Your task to perform on an android device: open device folders in google photos Image 0: 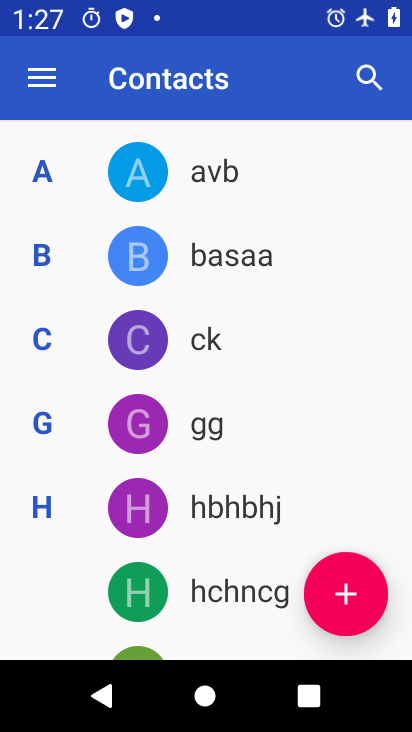
Step 0: press home button
Your task to perform on an android device: open device folders in google photos Image 1: 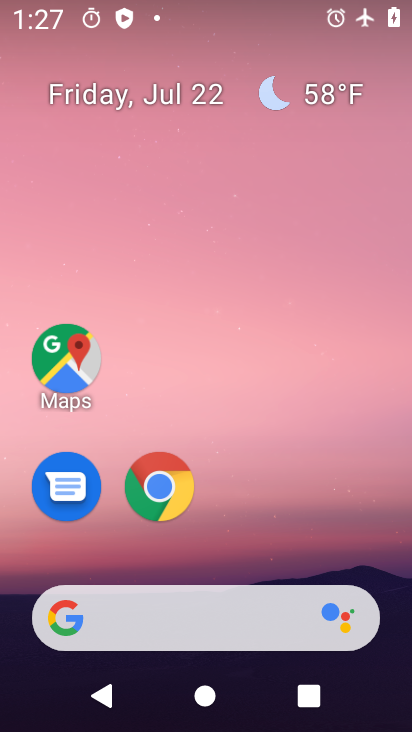
Step 1: drag from (377, 514) to (380, 106)
Your task to perform on an android device: open device folders in google photos Image 2: 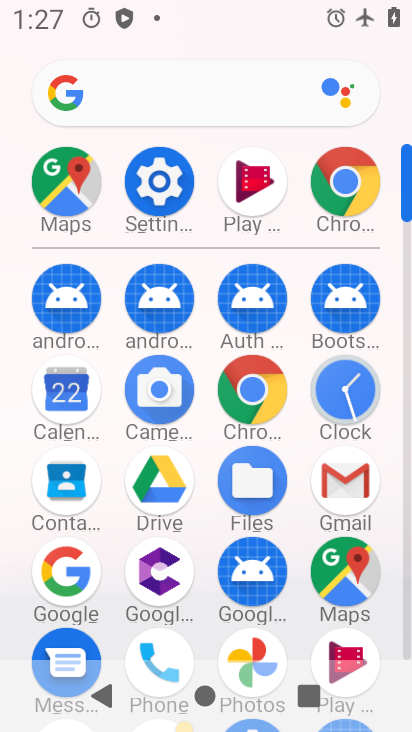
Step 2: drag from (404, 472) to (399, 366)
Your task to perform on an android device: open device folders in google photos Image 3: 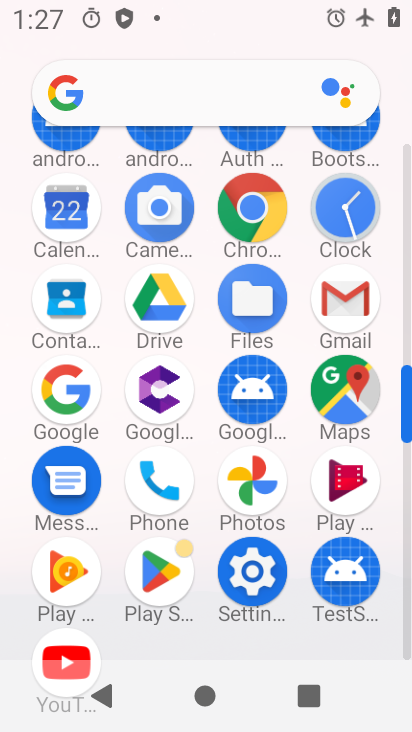
Step 3: click (266, 461)
Your task to perform on an android device: open device folders in google photos Image 4: 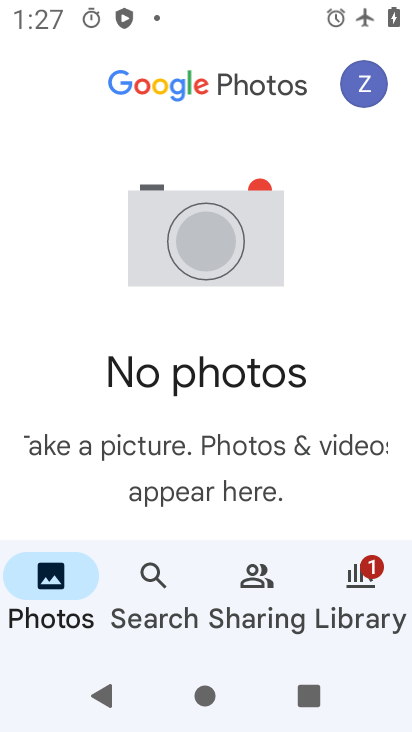
Step 4: click (360, 89)
Your task to perform on an android device: open device folders in google photos Image 5: 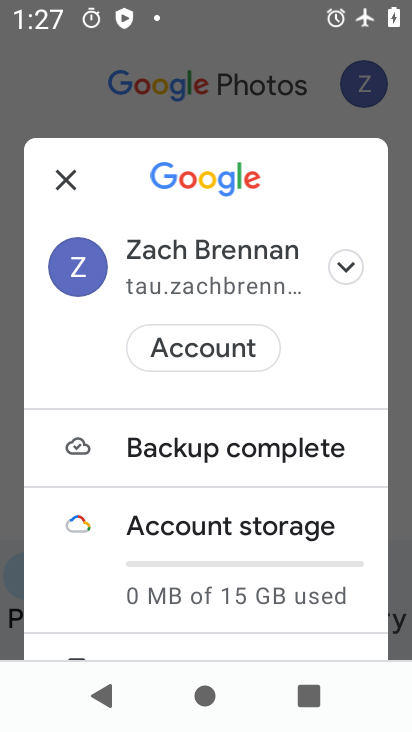
Step 5: task complete